Your task to perform on an android device: Open location settings Image 0: 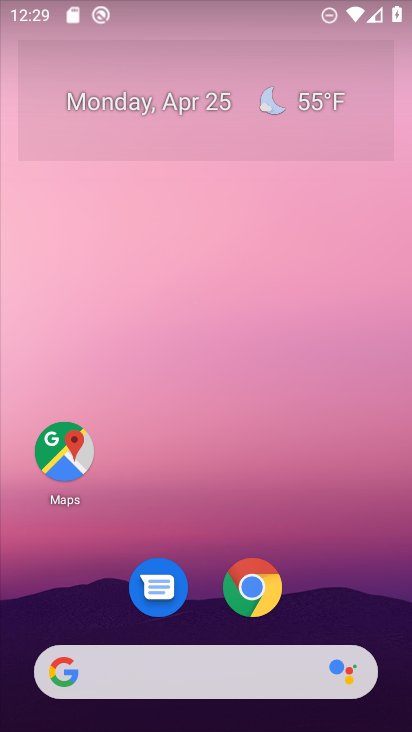
Step 0: drag from (320, 533) to (160, 105)
Your task to perform on an android device: Open location settings Image 1: 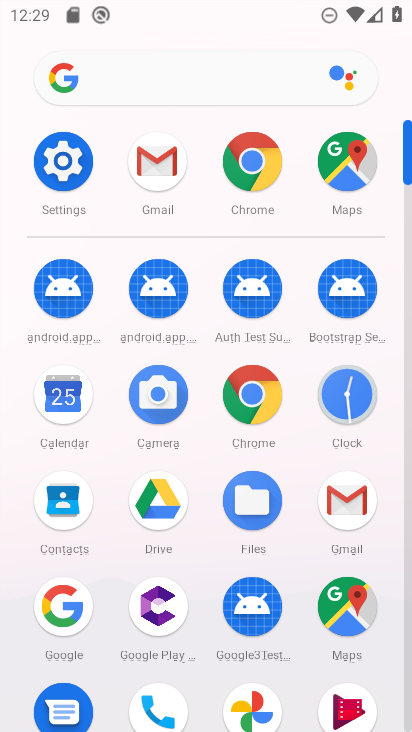
Step 1: click (60, 171)
Your task to perform on an android device: Open location settings Image 2: 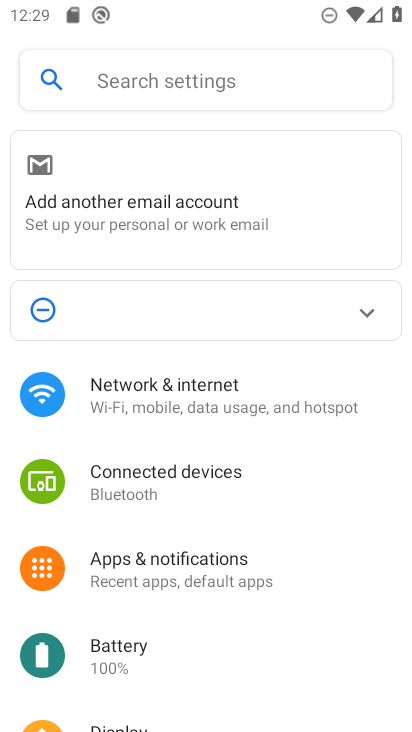
Step 2: drag from (251, 453) to (276, 90)
Your task to perform on an android device: Open location settings Image 3: 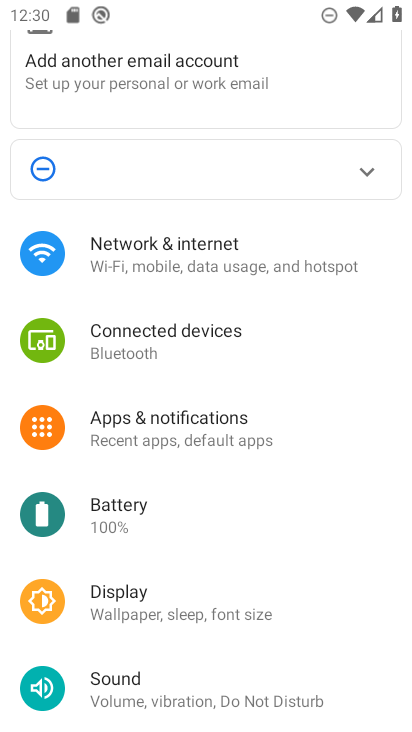
Step 3: drag from (252, 615) to (246, 133)
Your task to perform on an android device: Open location settings Image 4: 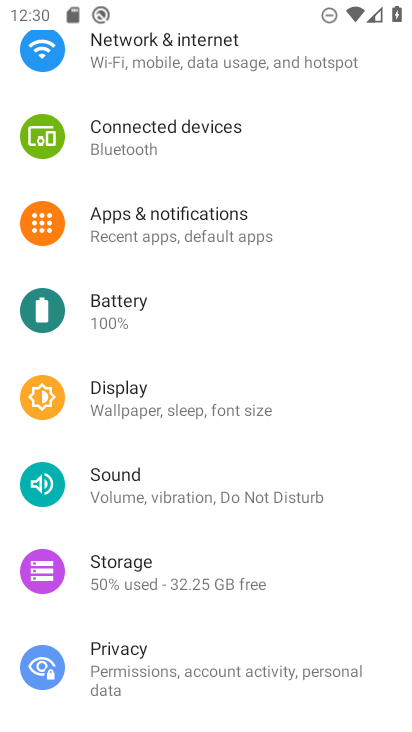
Step 4: drag from (217, 646) to (269, 174)
Your task to perform on an android device: Open location settings Image 5: 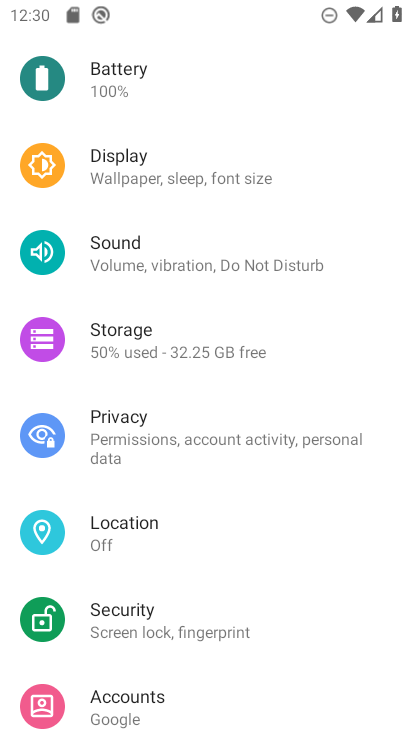
Step 5: click (114, 544)
Your task to perform on an android device: Open location settings Image 6: 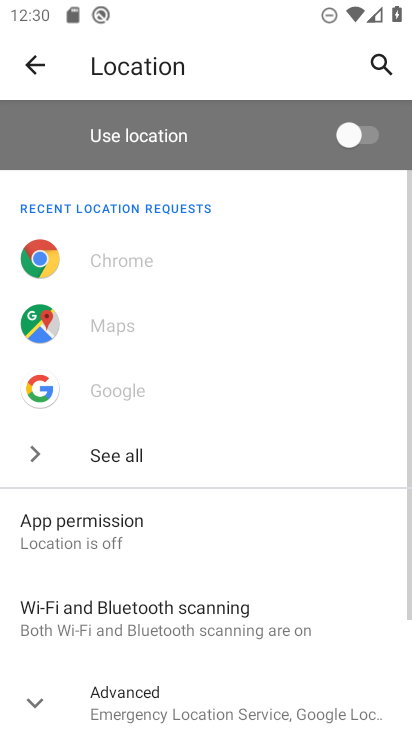
Step 6: task complete